Your task to perform on an android device: Open Google Chrome and click the shortcut for Amazon.com Image 0: 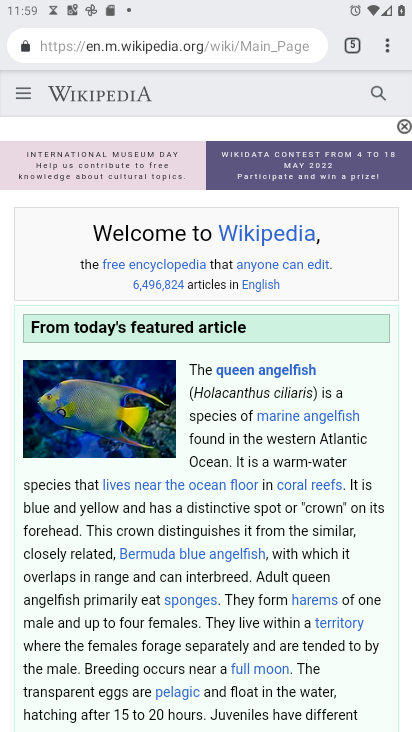
Step 0: press home button
Your task to perform on an android device: Open Google Chrome and click the shortcut for Amazon.com Image 1: 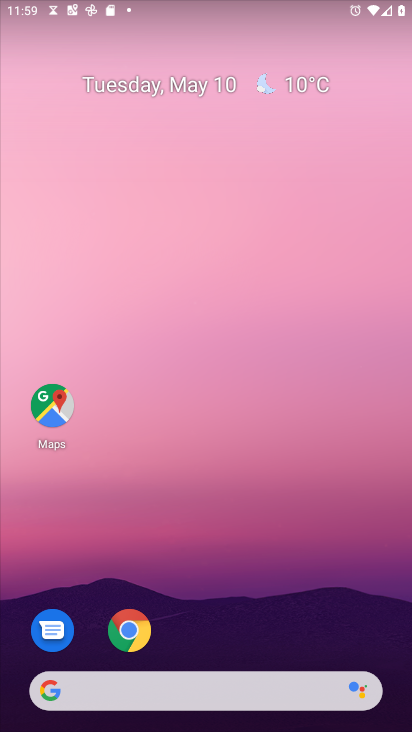
Step 1: click (133, 625)
Your task to perform on an android device: Open Google Chrome and click the shortcut for Amazon.com Image 2: 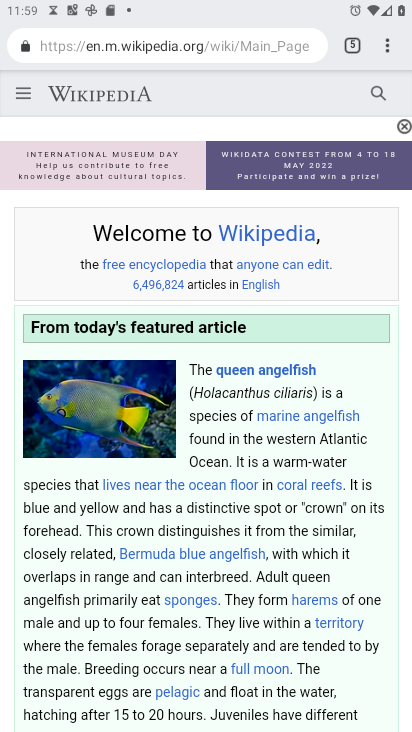
Step 2: click (357, 43)
Your task to perform on an android device: Open Google Chrome and click the shortcut for Amazon.com Image 3: 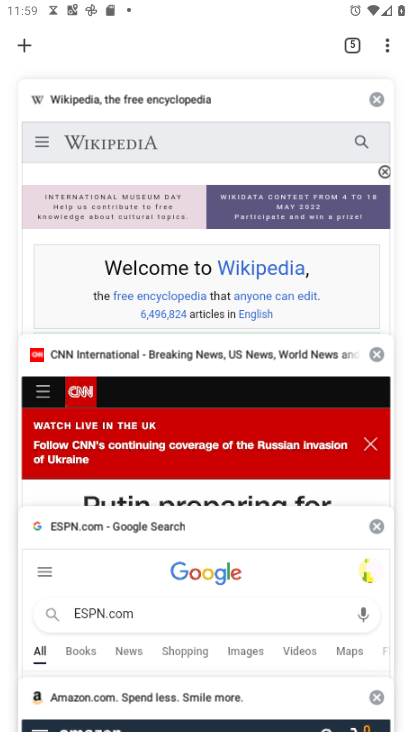
Step 3: drag from (210, 250) to (240, 491)
Your task to perform on an android device: Open Google Chrome and click the shortcut for Amazon.com Image 4: 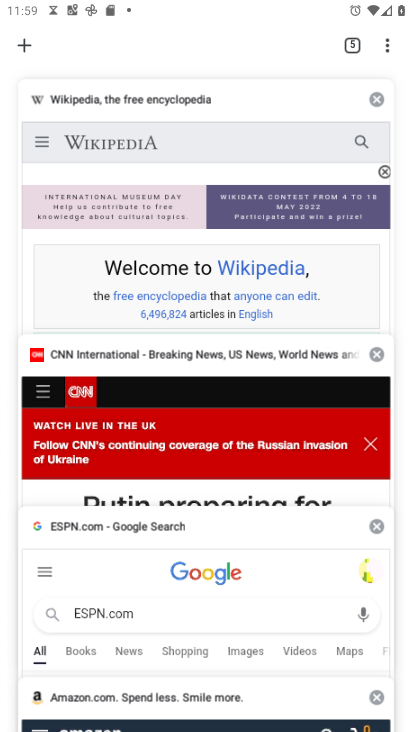
Step 4: drag from (186, 175) to (142, 499)
Your task to perform on an android device: Open Google Chrome and click the shortcut for Amazon.com Image 5: 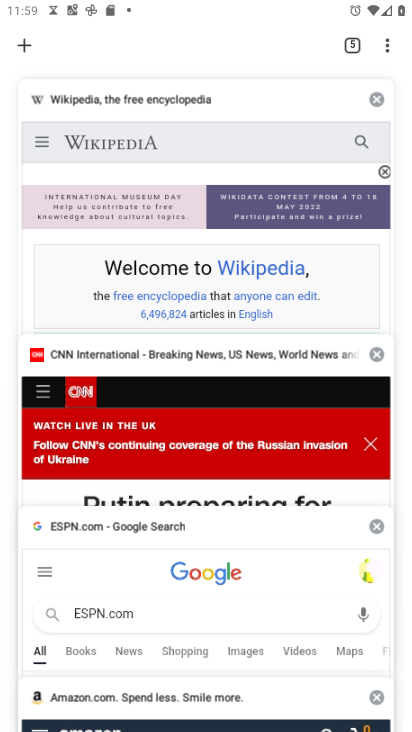
Step 5: drag from (140, 478) to (202, 78)
Your task to perform on an android device: Open Google Chrome and click the shortcut for Amazon.com Image 6: 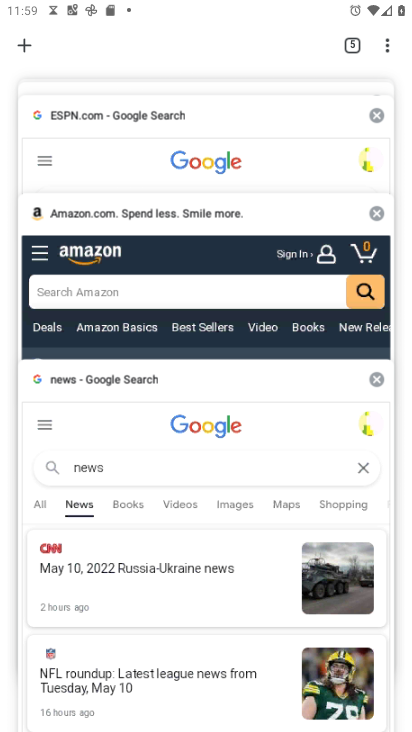
Step 6: click (194, 414)
Your task to perform on an android device: Open Google Chrome and click the shortcut for Amazon.com Image 7: 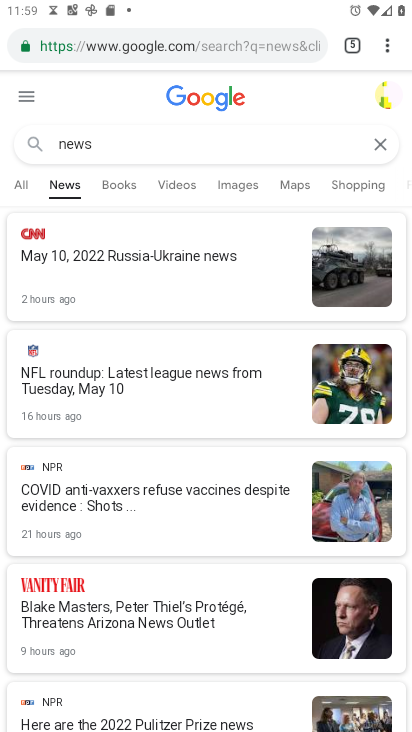
Step 7: task complete